Your task to perform on an android device: Open ESPN.com Image 0: 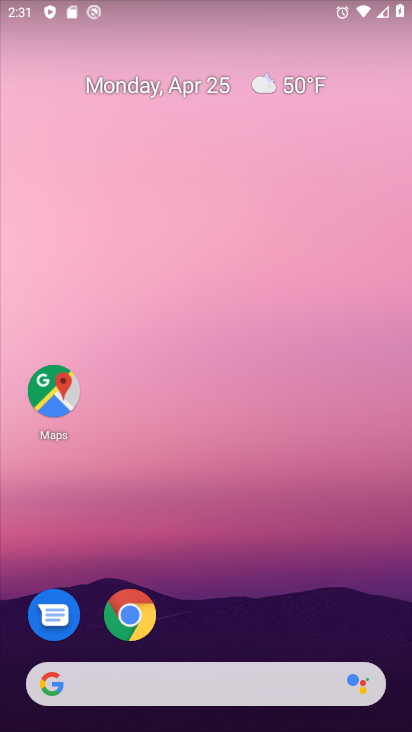
Step 0: click (129, 615)
Your task to perform on an android device: Open ESPN.com Image 1: 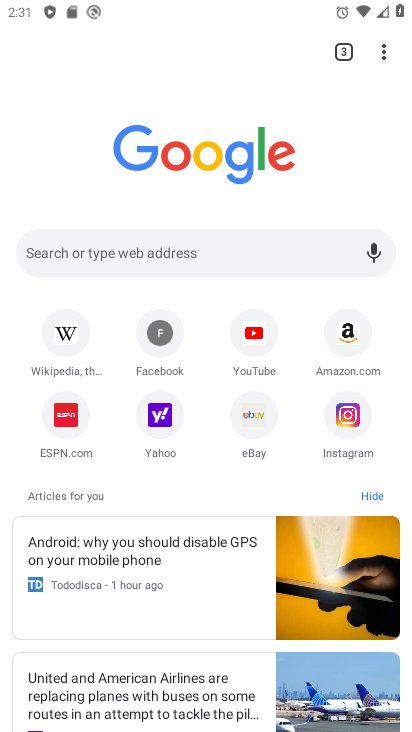
Step 1: click (67, 416)
Your task to perform on an android device: Open ESPN.com Image 2: 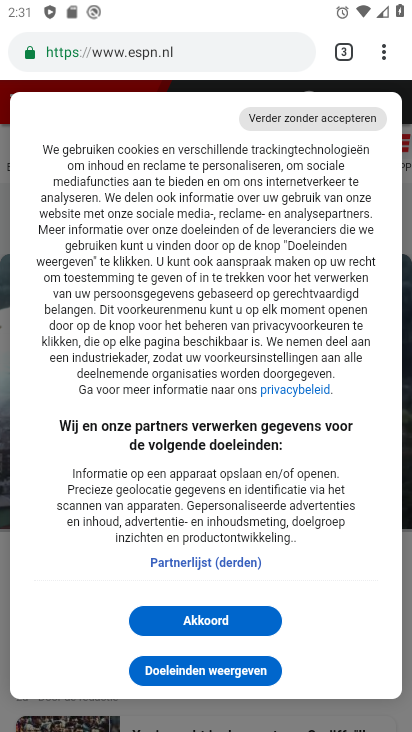
Step 2: task complete